Your task to perform on an android device: Go to CNN.com Image 0: 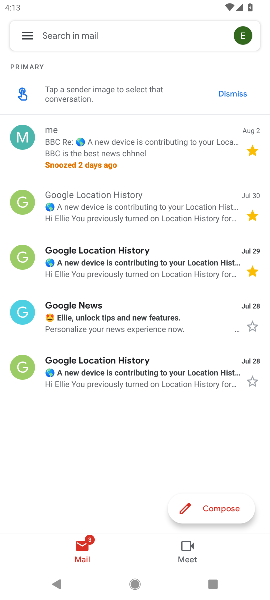
Step 0: press home button
Your task to perform on an android device: Go to CNN.com Image 1: 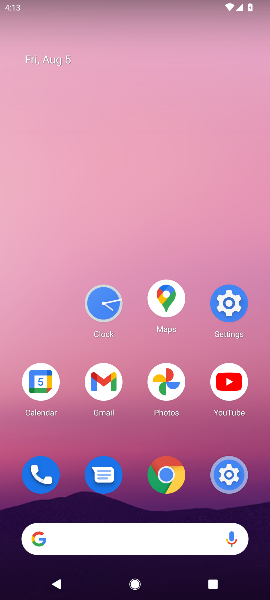
Step 1: click (170, 467)
Your task to perform on an android device: Go to CNN.com Image 2: 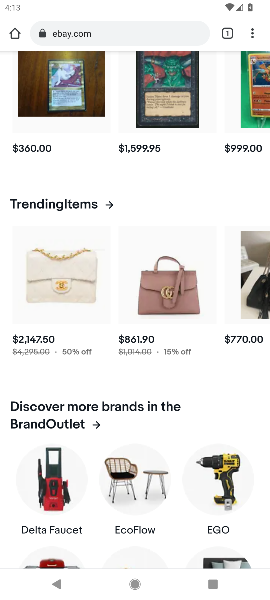
Step 2: press back button
Your task to perform on an android device: Go to CNN.com Image 3: 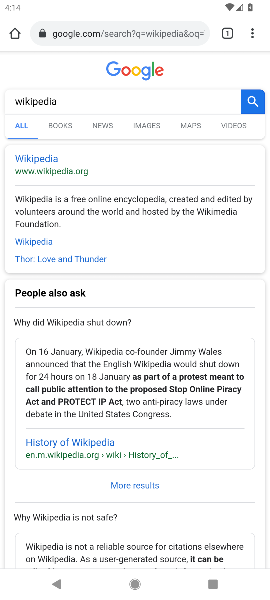
Step 3: click (134, 36)
Your task to perform on an android device: Go to CNN.com Image 4: 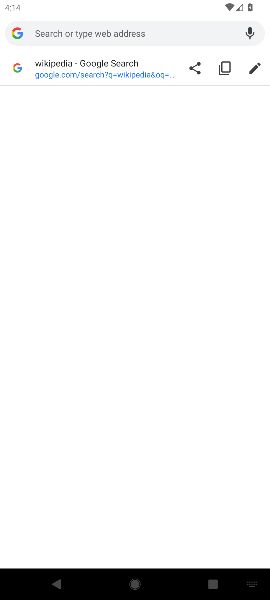
Step 4: type "CNN.com"
Your task to perform on an android device: Go to CNN.com Image 5: 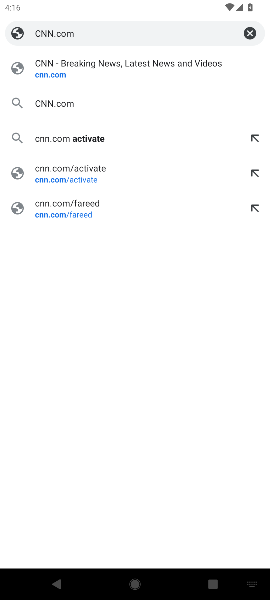
Step 5: click (59, 103)
Your task to perform on an android device: Go to CNN.com Image 6: 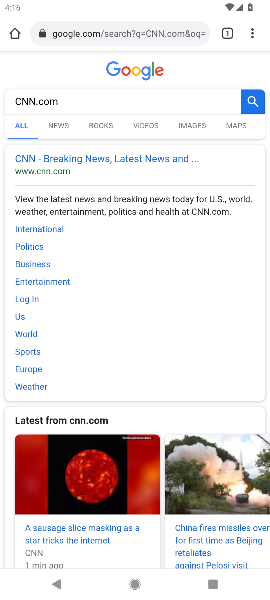
Step 6: task complete